Your task to perform on an android device: install app "YouTube Kids" Image 0: 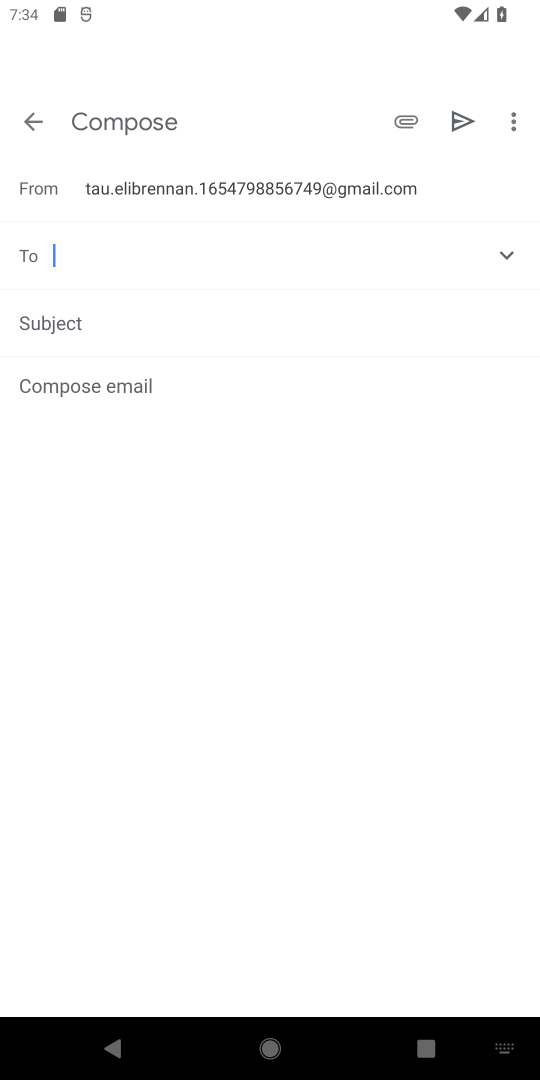
Step 0: press home button
Your task to perform on an android device: install app "YouTube Kids" Image 1: 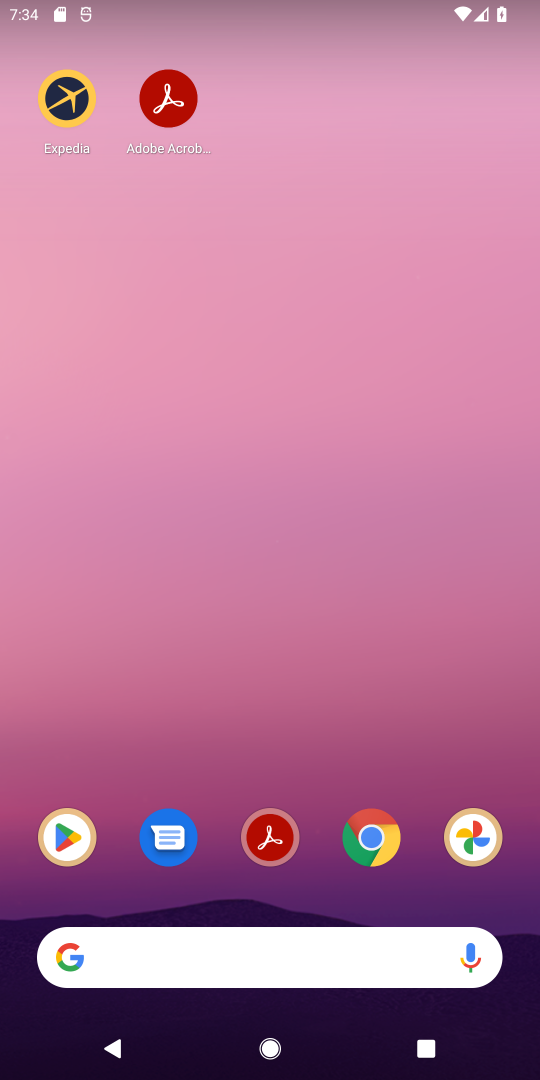
Step 1: click (46, 842)
Your task to perform on an android device: install app "YouTube Kids" Image 2: 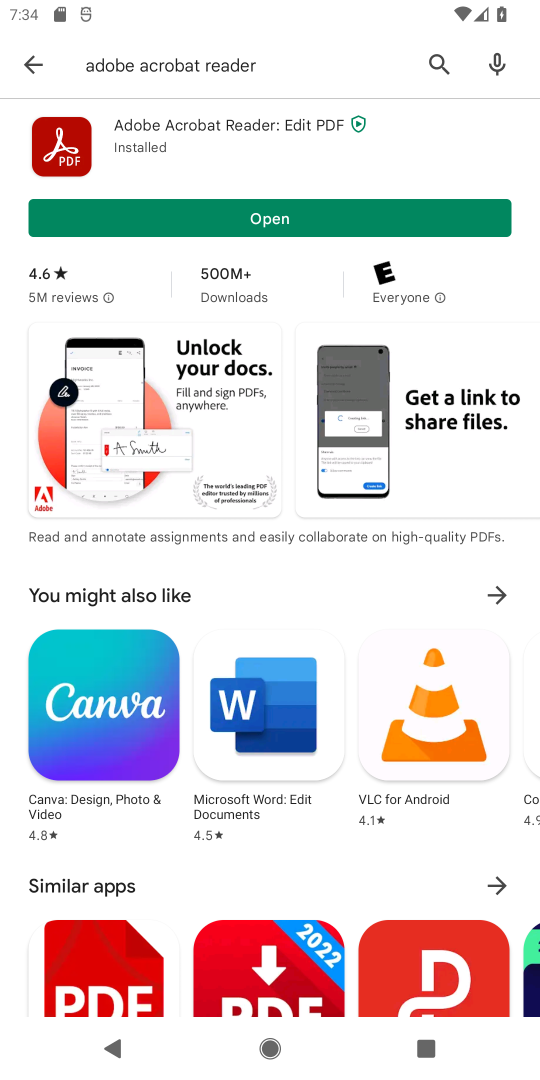
Step 2: click (440, 55)
Your task to perform on an android device: install app "YouTube Kids" Image 3: 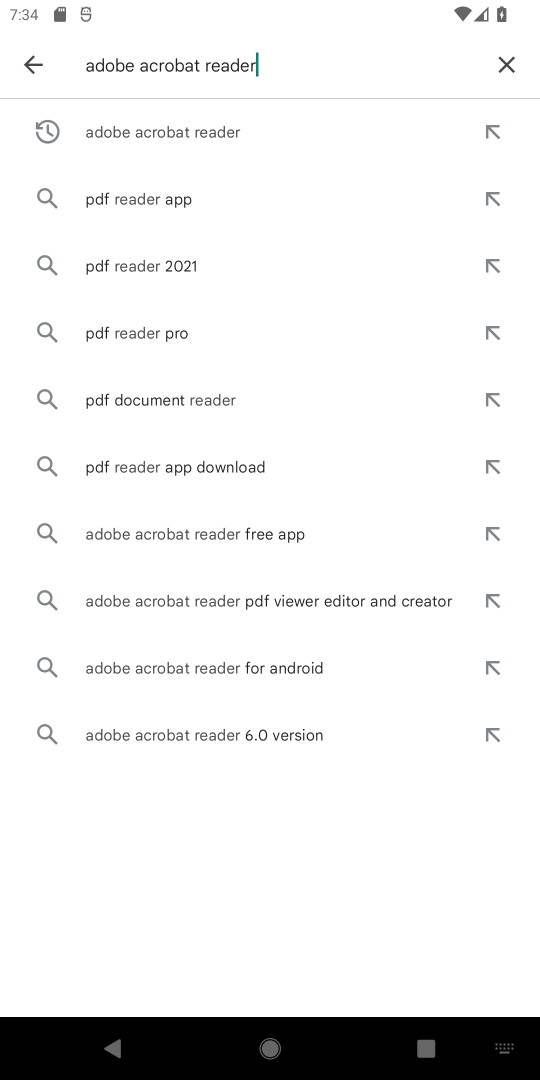
Step 3: click (510, 64)
Your task to perform on an android device: install app "YouTube Kids" Image 4: 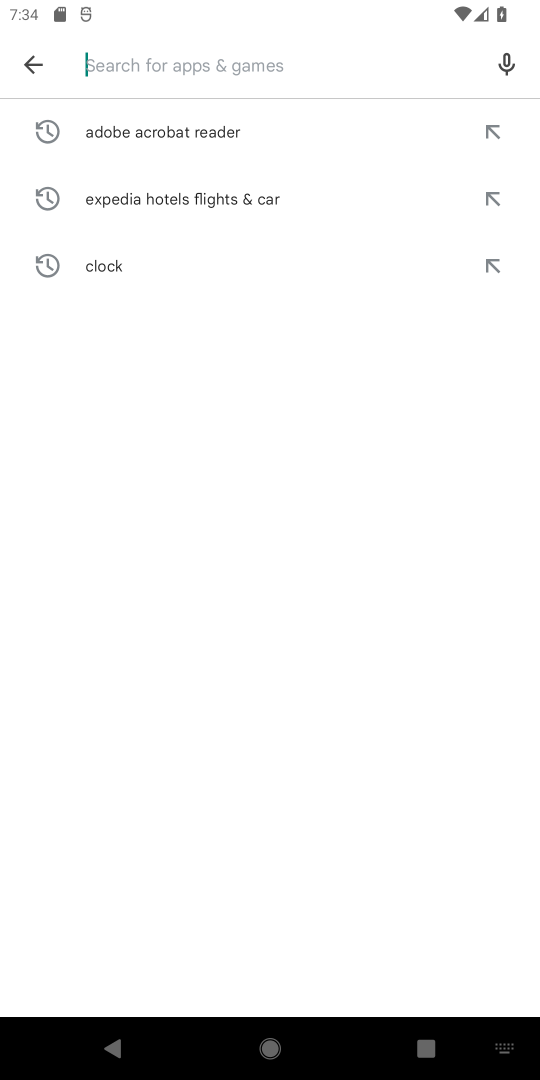
Step 4: type "YouTube kids"
Your task to perform on an android device: install app "YouTube Kids" Image 5: 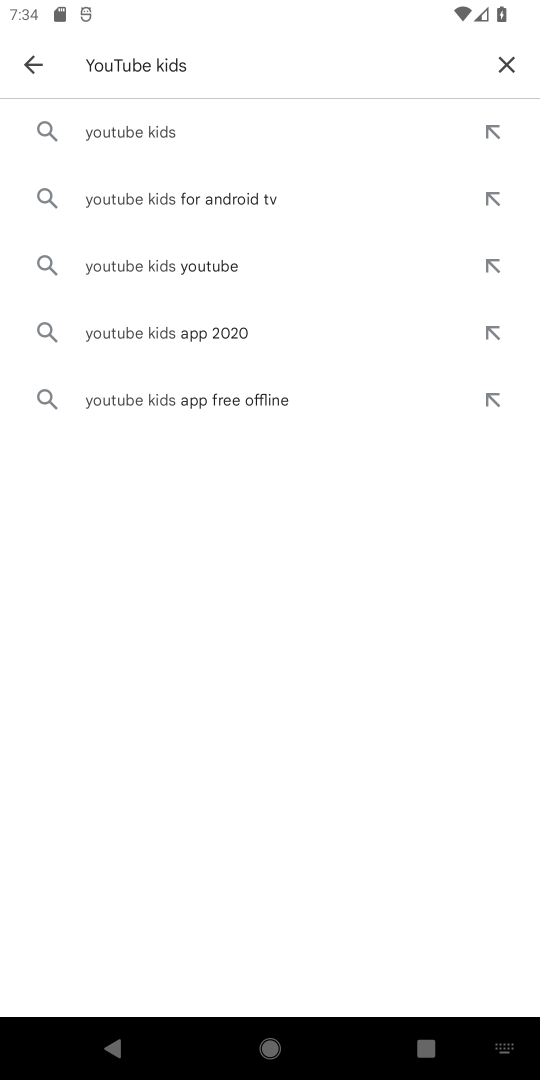
Step 5: click (197, 133)
Your task to perform on an android device: install app "YouTube Kids" Image 6: 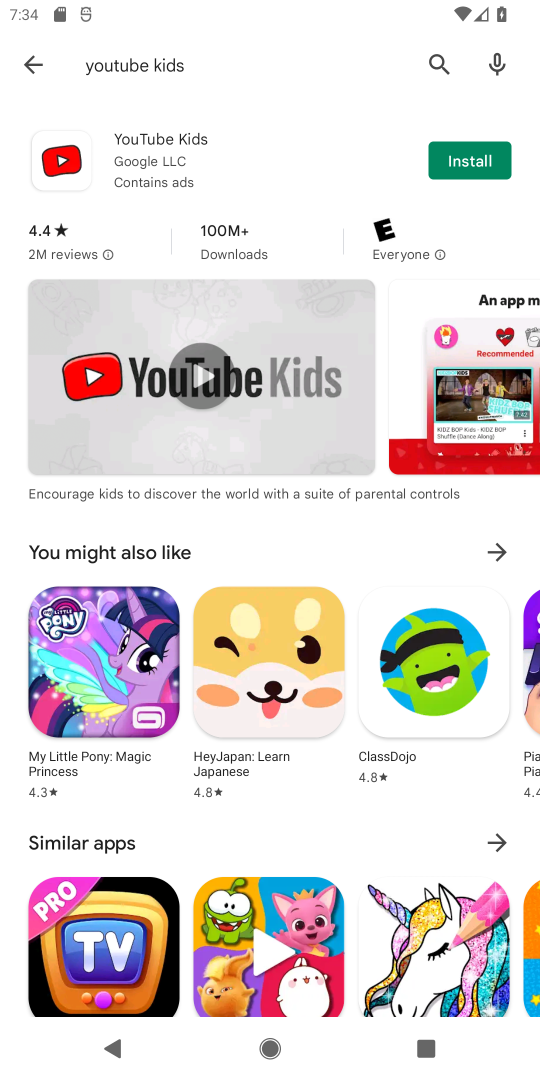
Step 6: click (231, 136)
Your task to perform on an android device: install app "YouTube Kids" Image 7: 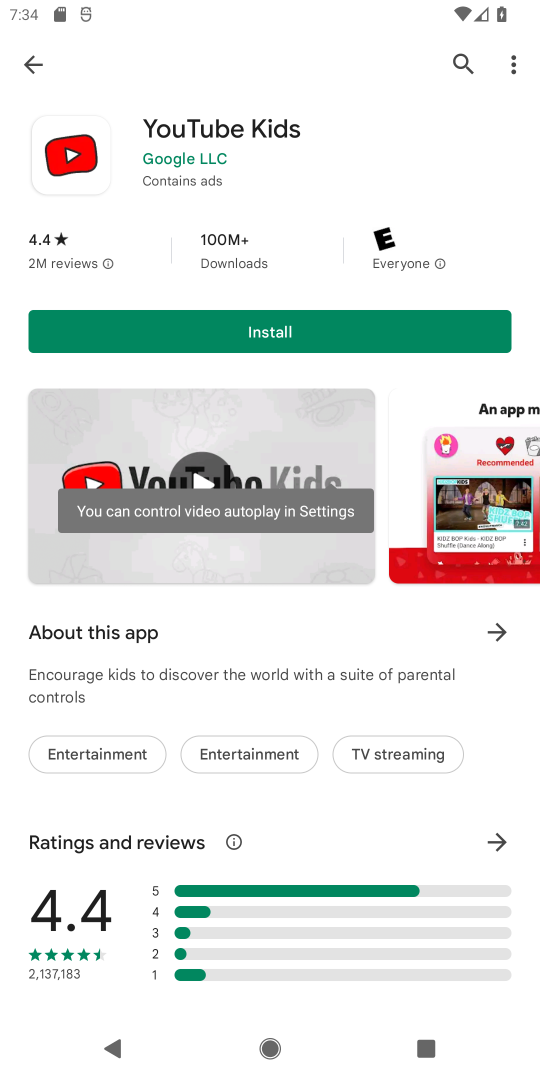
Step 7: click (257, 331)
Your task to perform on an android device: install app "YouTube Kids" Image 8: 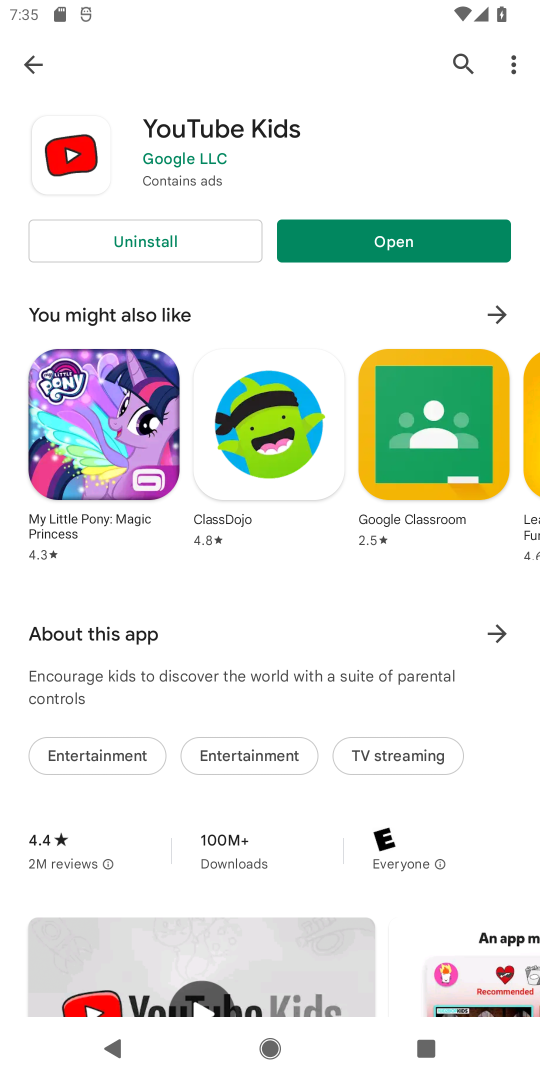
Step 8: task complete